Your task to perform on an android device: allow notifications from all sites in the chrome app Image 0: 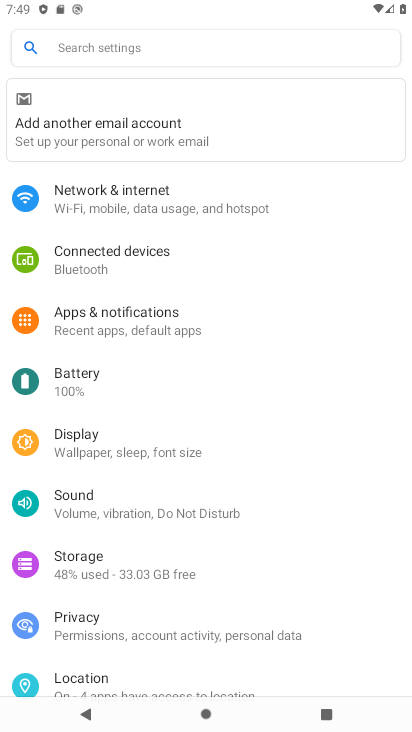
Step 0: press home button
Your task to perform on an android device: allow notifications from all sites in the chrome app Image 1: 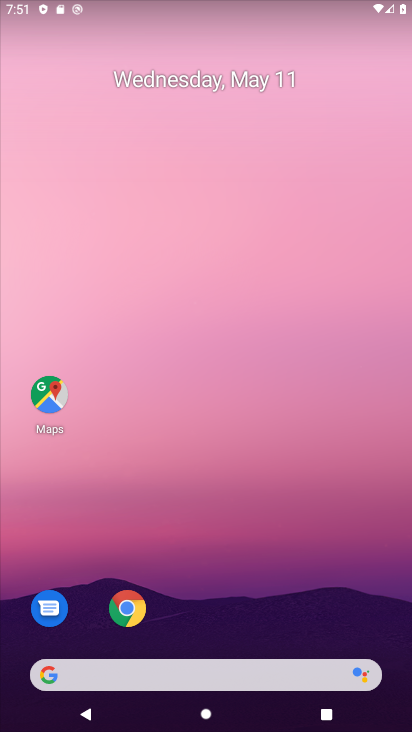
Step 1: click (210, 592)
Your task to perform on an android device: allow notifications from all sites in the chrome app Image 2: 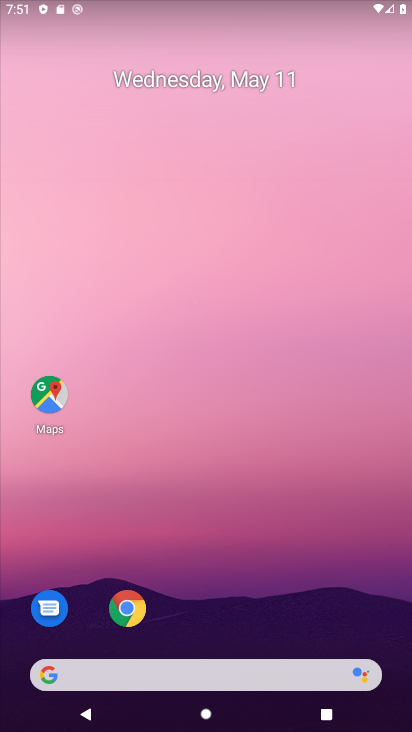
Step 2: click (129, 619)
Your task to perform on an android device: allow notifications from all sites in the chrome app Image 3: 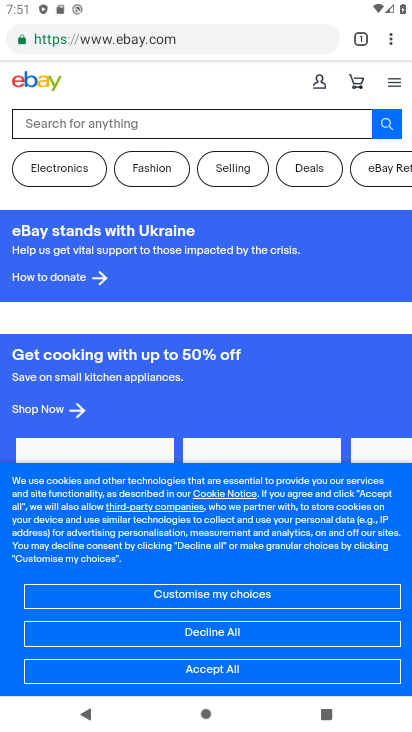
Step 3: click (390, 27)
Your task to perform on an android device: allow notifications from all sites in the chrome app Image 4: 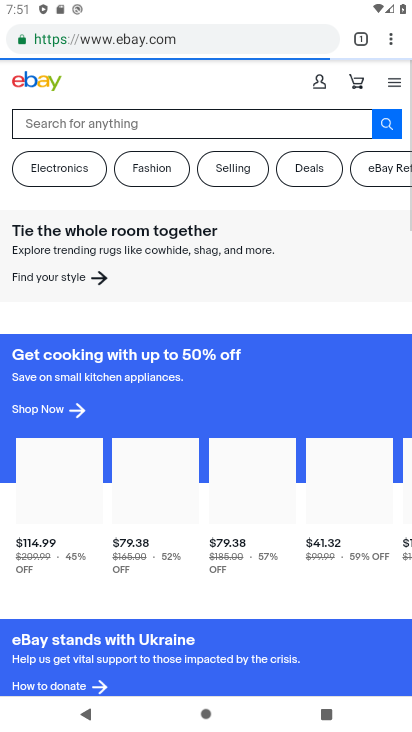
Step 4: click (389, 39)
Your task to perform on an android device: allow notifications from all sites in the chrome app Image 5: 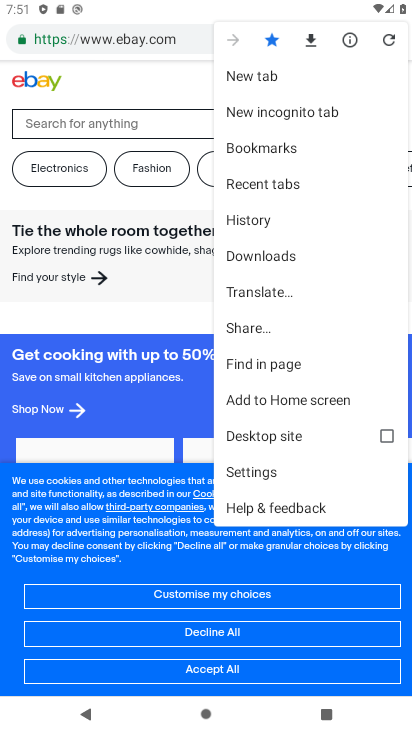
Step 5: click (264, 464)
Your task to perform on an android device: allow notifications from all sites in the chrome app Image 6: 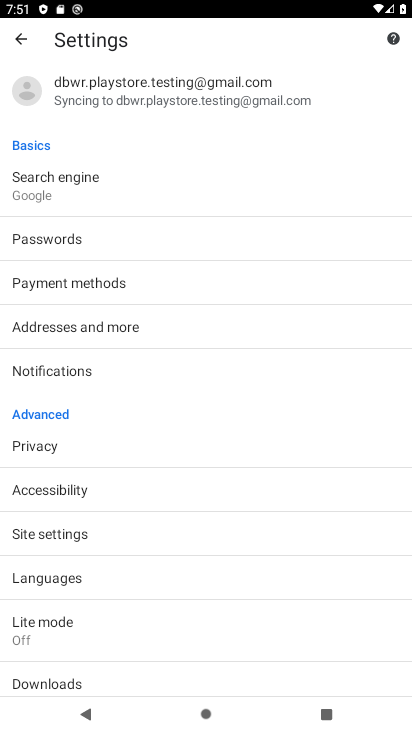
Step 6: drag from (146, 615) to (93, 258)
Your task to perform on an android device: allow notifications from all sites in the chrome app Image 7: 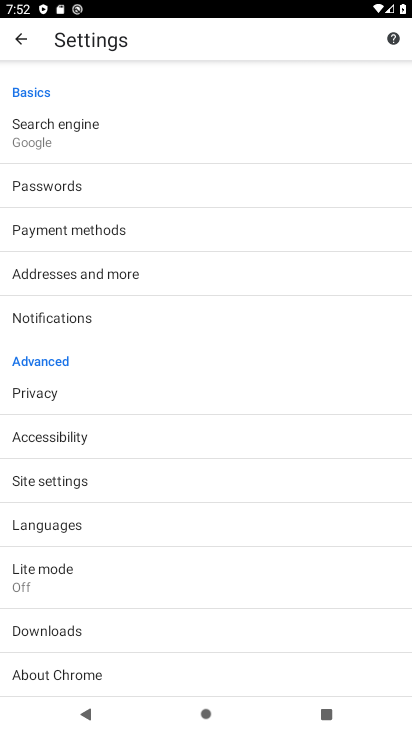
Step 7: click (153, 486)
Your task to perform on an android device: allow notifications from all sites in the chrome app Image 8: 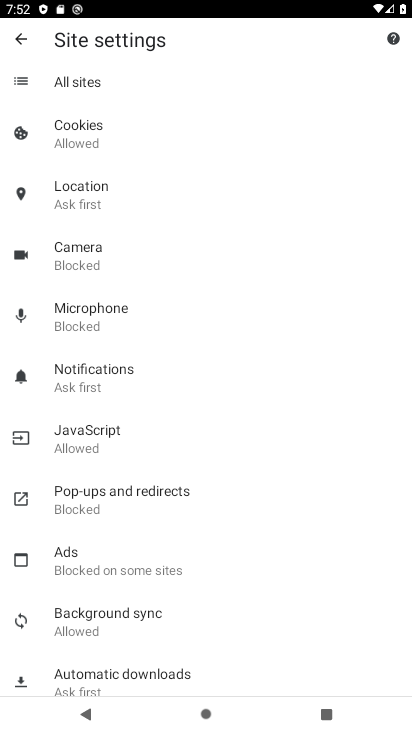
Step 8: click (179, 361)
Your task to perform on an android device: allow notifications from all sites in the chrome app Image 9: 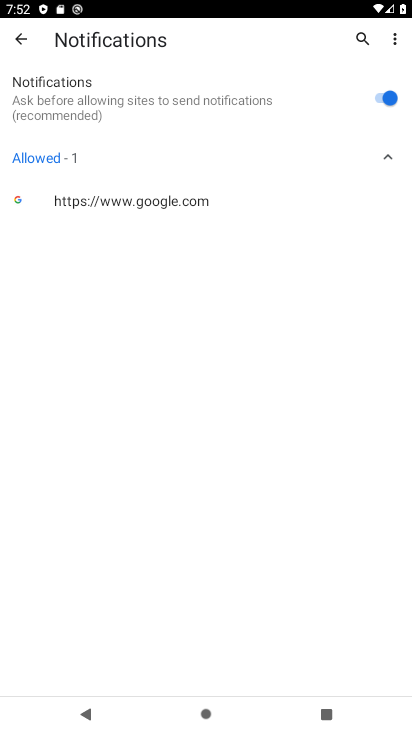
Step 9: task complete